Your task to perform on an android device: manage bookmarks in the chrome app Image 0: 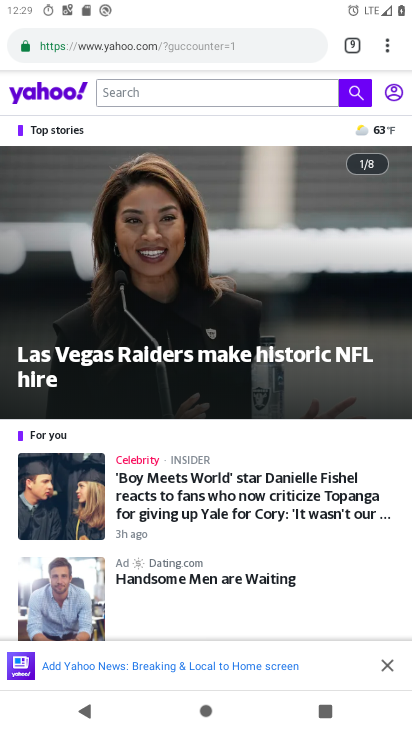
Step 0: press home button
Your task to perform on an android device: manage bookmarks in the chrome app Image 1: 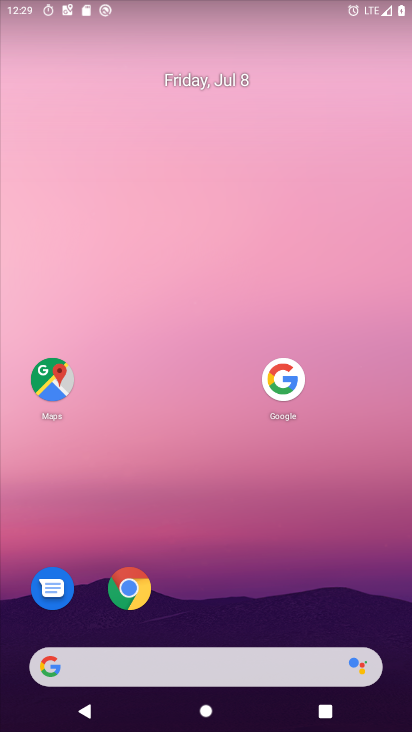
Step 1: click (133, 590)
Your task to perform on an android device: manage bookmarks in the chrome app Image 2: 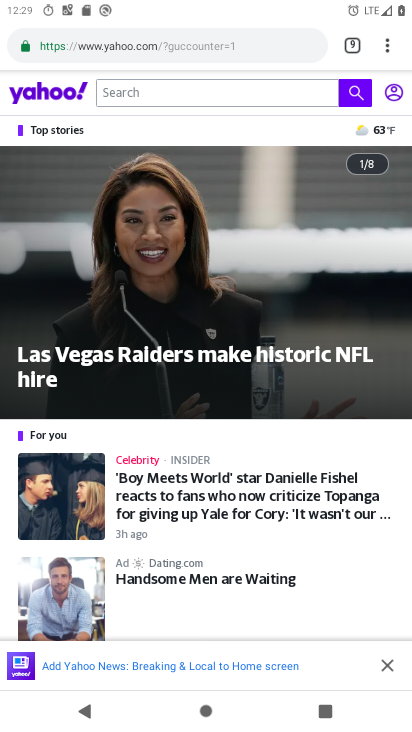
Step 2: task complete